Your task to perform on an android device: toggle data saver in the chrome app Image 0: 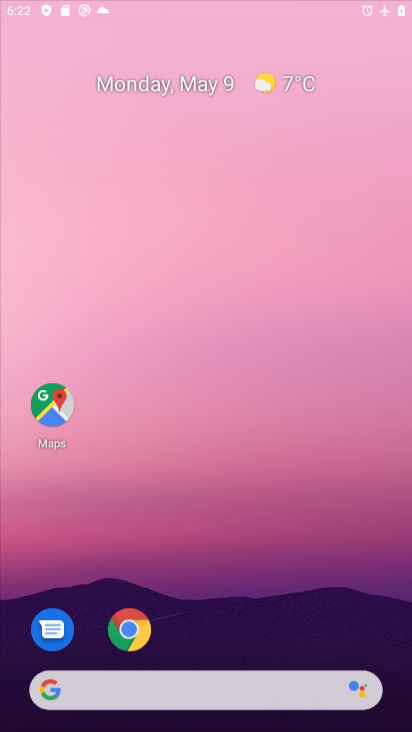
Step 0: drag from (257, 565) to (182, 140)
Your task to perform on an android device: toggle data saver in the chrome app Image 1: 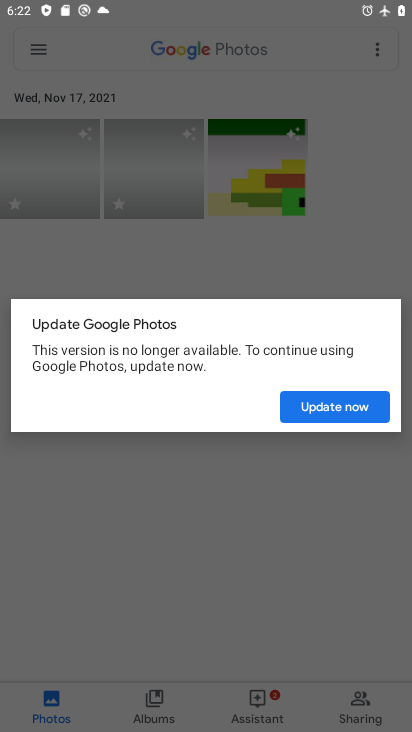
Step 1: press home button
Your task to perform on an android device: toggle data saver in the chrome app Image 2: 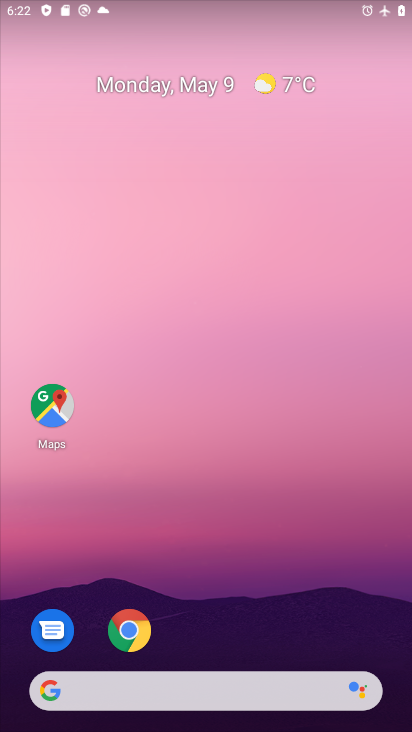
Step 2: drag from (225, 601) to (174, 127)
Your task to perform on an android device: toggle data saver in the chrome app Image 3: 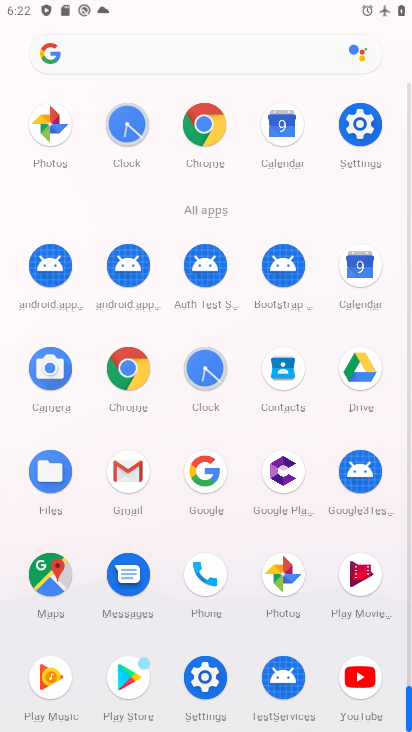
Step 3: click (227, 155)
Your task to perform on an android device: toggle data saver in the chrome app Image 4: 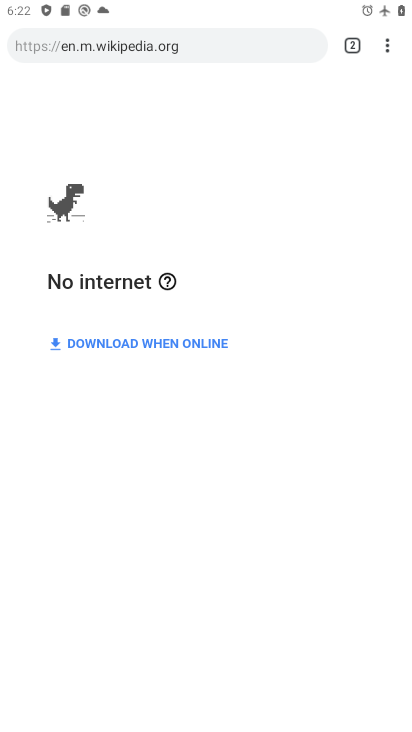
Step 4: click (391, 42)
Your task to perform on an android device: toggle data saver in the chrome app Image 5: 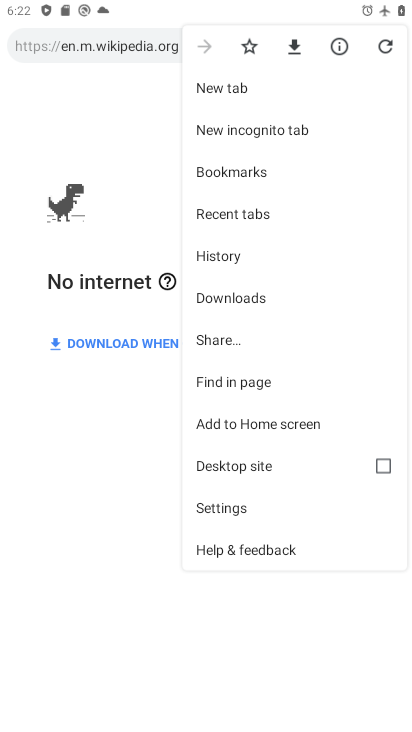
Step 5: click (223, 507)
Your task to perform on an android device: toggle data saver in the chrome app Image 6: 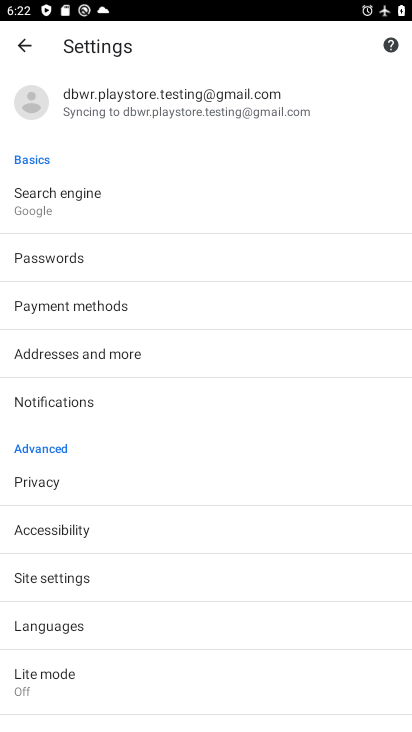
Step 6: click (75, 686)
Your task to perform on an android device: toggle data saver in the chrome app Image 7: 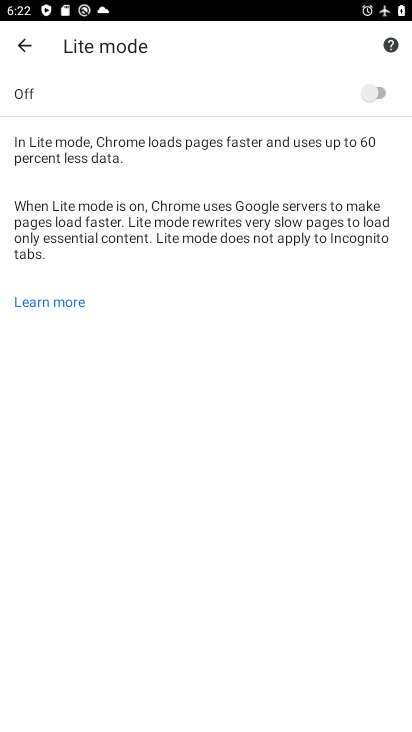
Step 7: click (385, 95)
Your task to perform on an android device: toggle data saver in the chrome app Image 8: 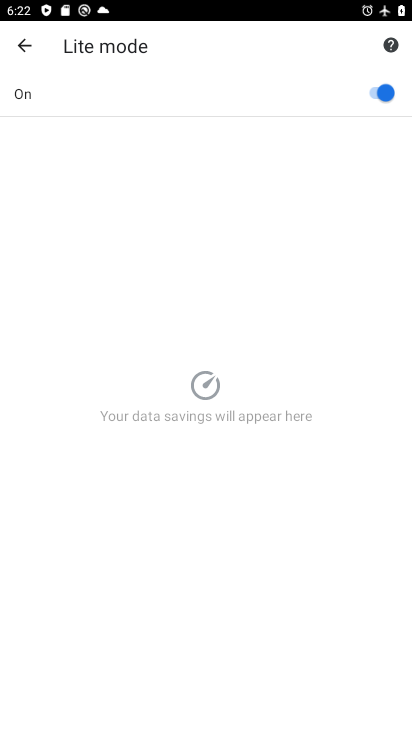
Step 8: task complete